Your task to perform on an android device: toggle priority inbox in the gmail app Image 0: 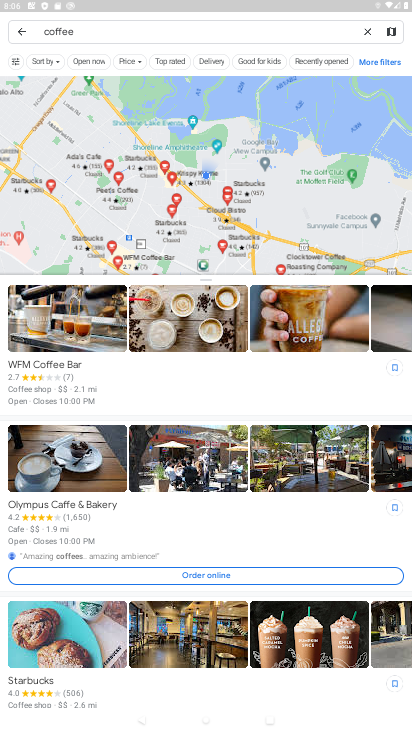
Step 0: press home button
Your task to perform on an android device: toggle priority inbox in the gmail app Image 1: 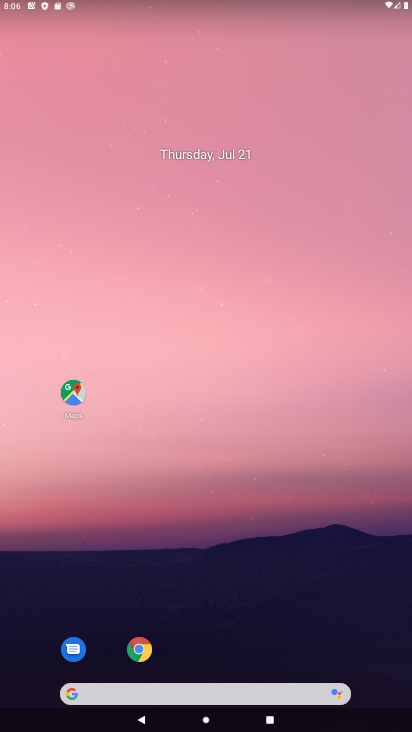
Step 1: drag from (221, 672) to (119, 6)
Your task to perform on an android device: toggle priority inbox in the gmail app Image 2: 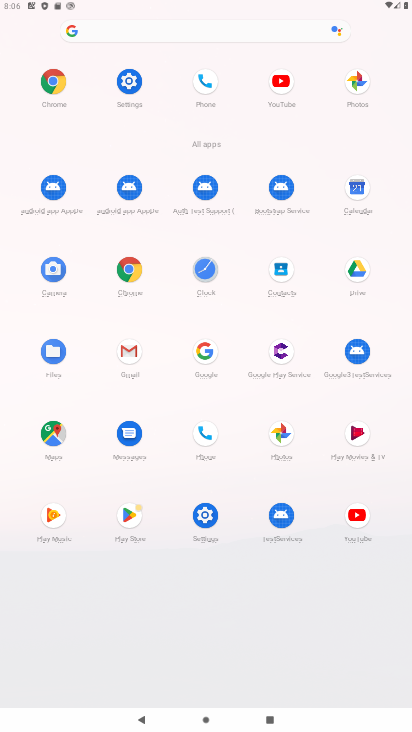
Step 2: click (128, 361)
Your task to perform on an android device: toggle priority inbox in the gmail app Image 3: 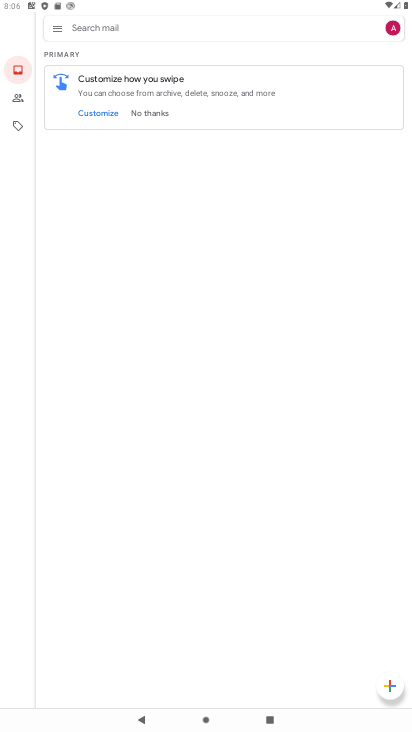
Step 3: click (56, 32)
Your task to perform on an android device: toggle priority inbox in the gmail app Image 4: 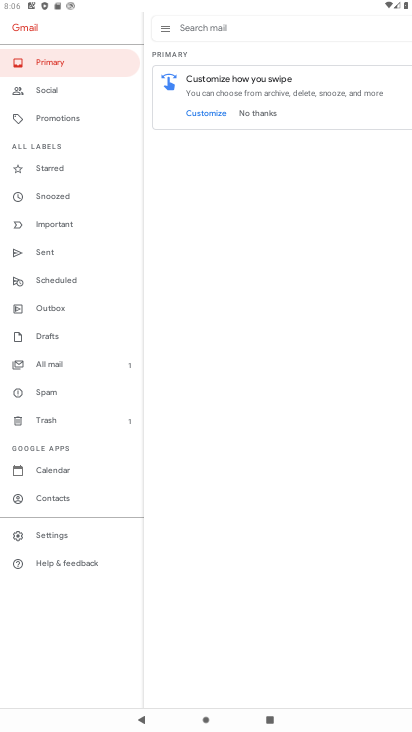
Step 4: click (64, 539)
Your task to perform on an android device: toggle priority inbox in the gmail app Image 5: 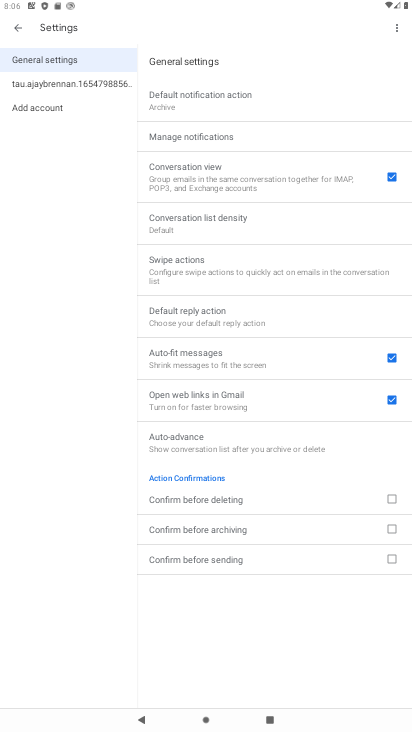
Step 5: click (87, 84)
Your task to perform on an android device: toggle priority inbox in the gmail app Image 6: 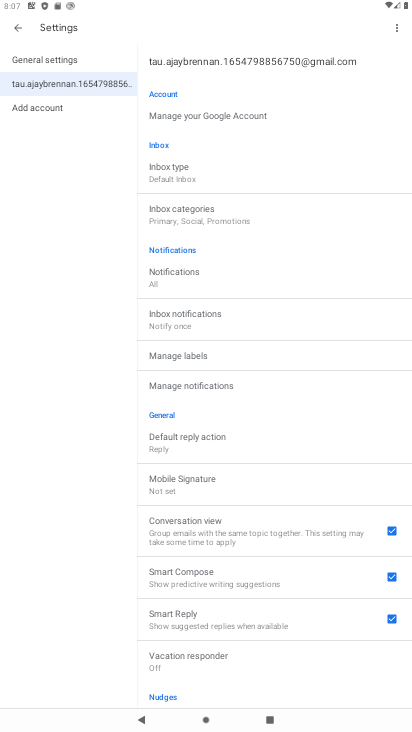
Step 6: click (198, 173)
Your task to perform on an android device: toggle priority inbox in the gmail app Image 7: 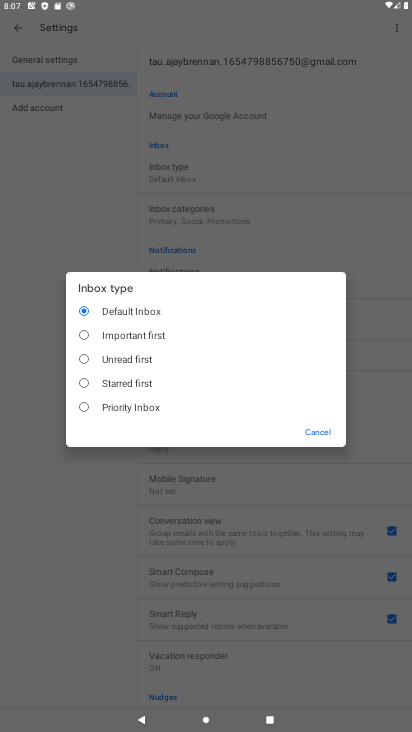
Step 7: click (117, 408)
Your task to perform on an android device: toggle priority inbox in the gmail app Image 8: 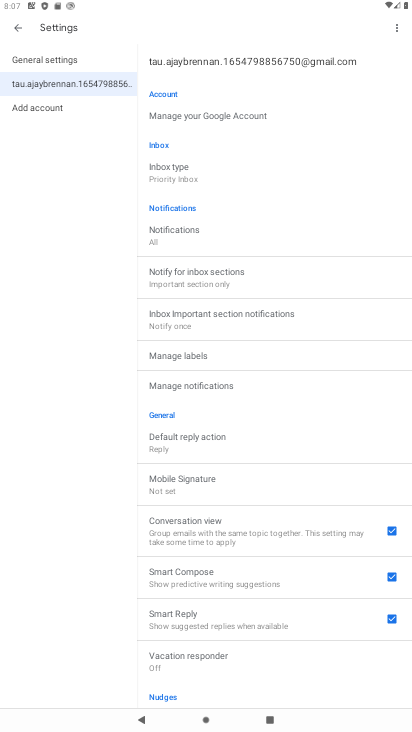
Step 8: task complete